Your task to perform on an android device: Go to Android settings Image 0: 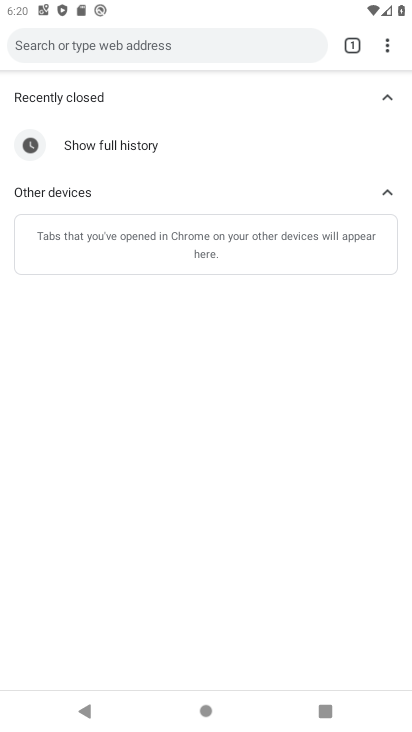
Step 0: press home button
Your task to perform on an android device: Go to Android settings Image 1: 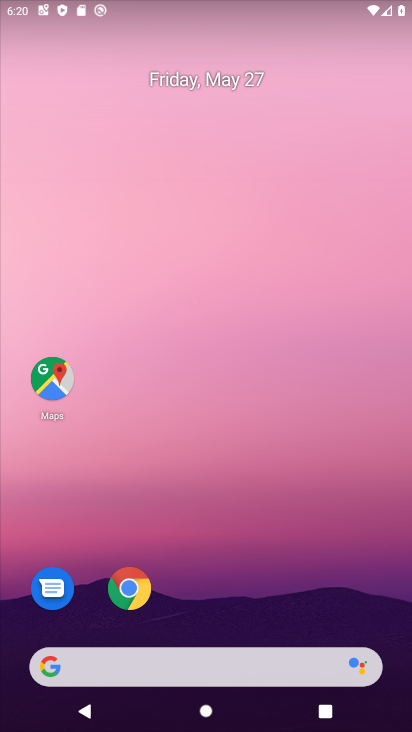
Step 1: drag from (325, 625) to (315, 78)
Your task to perform on an android device: Go to Android settings Image 2: 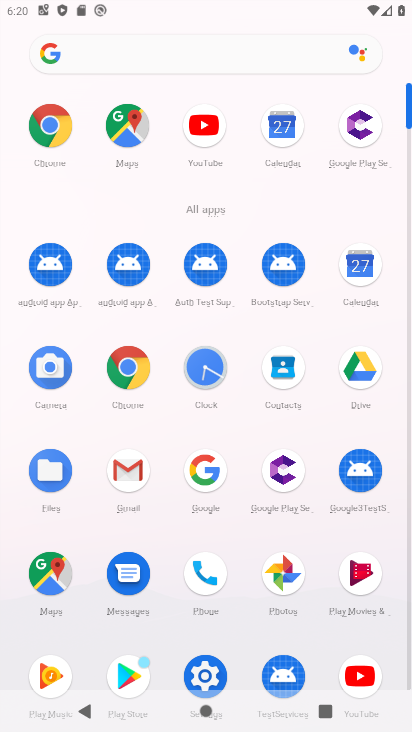
Step 2: click (200, 660)
Your task to perform on an android device: Go to Android settings Image 3: 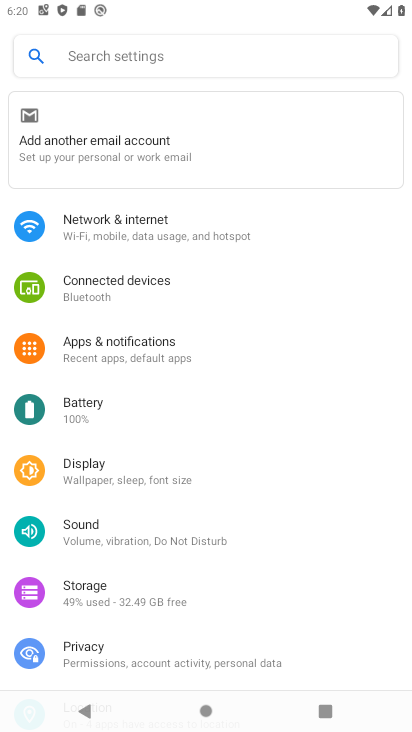
Step 3: drag from (210, 563) to (236, 178)
Your task to perform on an android device: Go to Android settings Image 4: 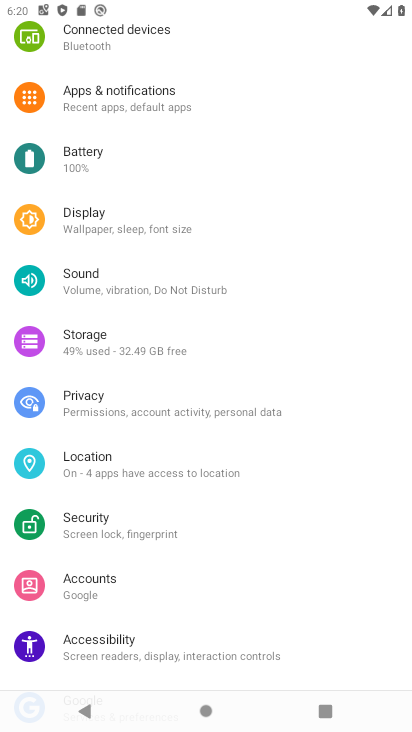
Step 4: drag from (249, 576) to (240, 136)
Your task to perform on an android device: Go to Android settings Image 5: 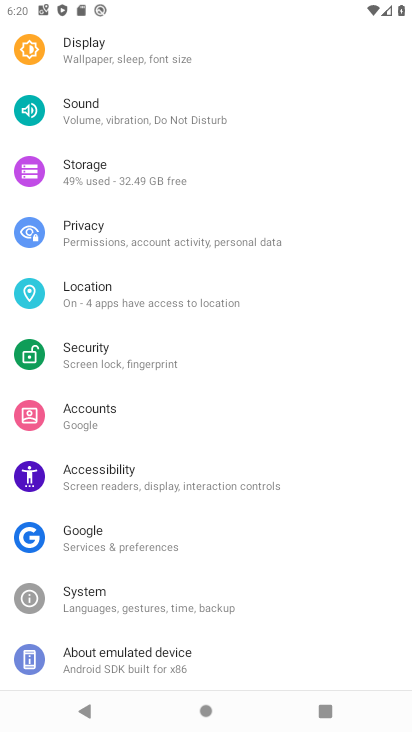
Step 5: click (96, 661)
Your task to perform on an android device: Go to Android settings Image 6: 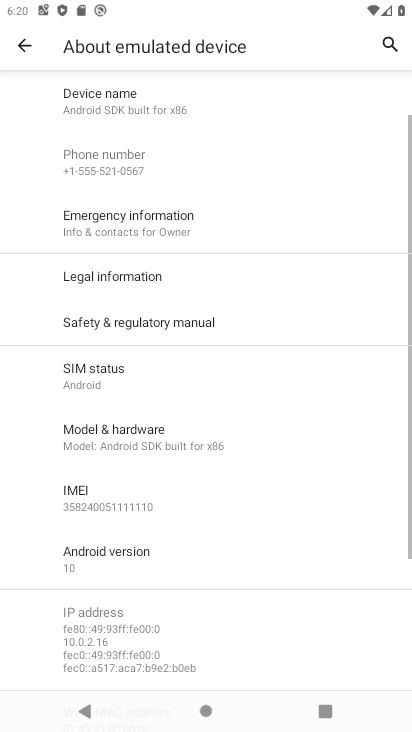
Step 6: click (111, 555)
Your task to perform on an android device: Go to Android settings Image 7: 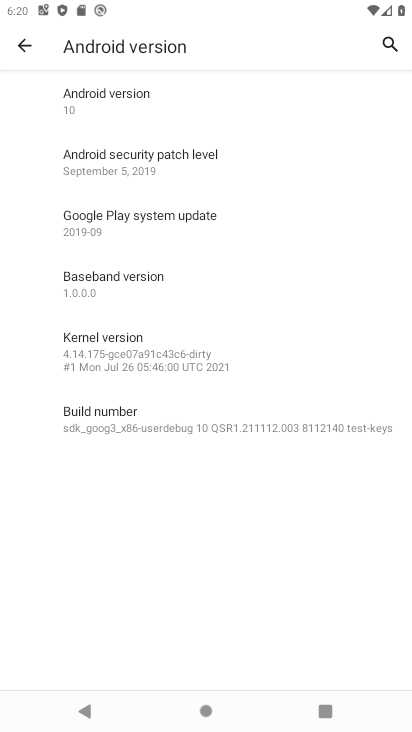
Step 7: task complete